Your task to perform on an android device: set an alarm Image 0: 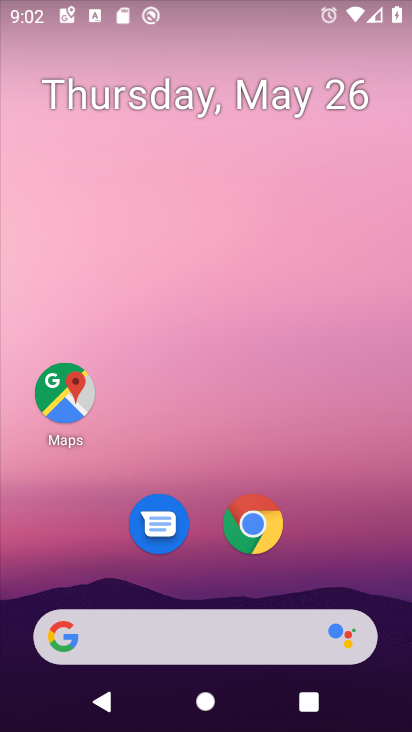
Step 0: drag from (235, 418) to (304, 5)
Your task to perform on an android device: set an alarm Image 1: 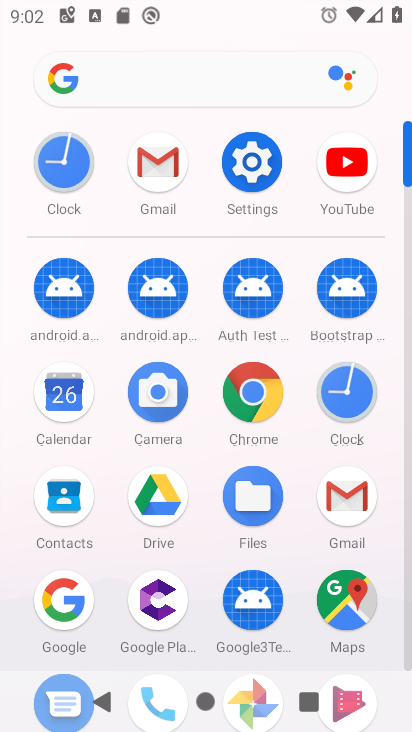
Step 1: click (65, 147)
Your task to perform on an android device: set an alarm Image 2: 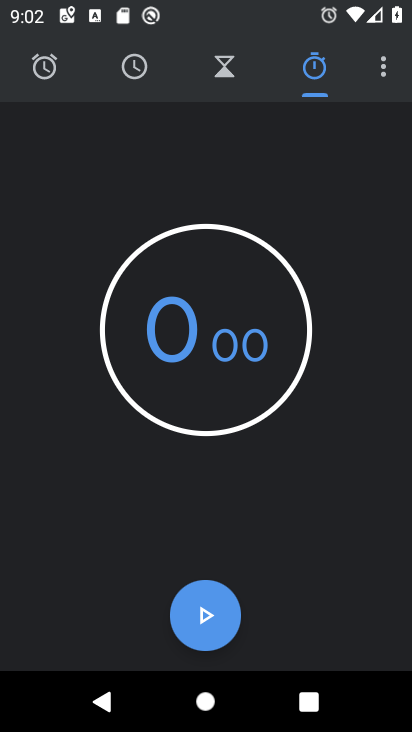
Step 2: click (36, 58)
Your task to perform on an android device: set an alarm Image 3: 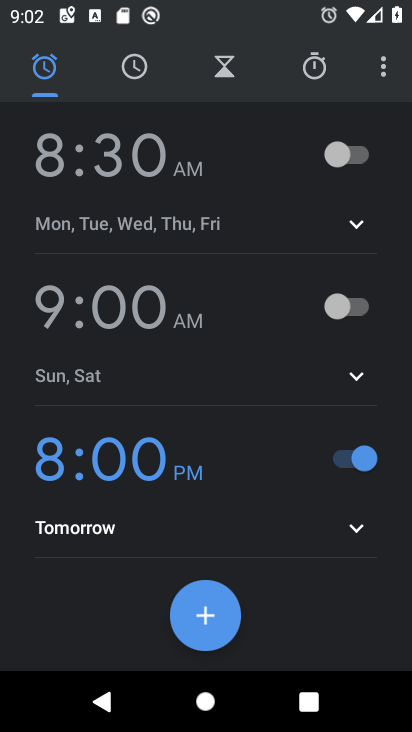
Step 3: click (212, 608)
Your task to perform on an android device: set an alarm Image 4: 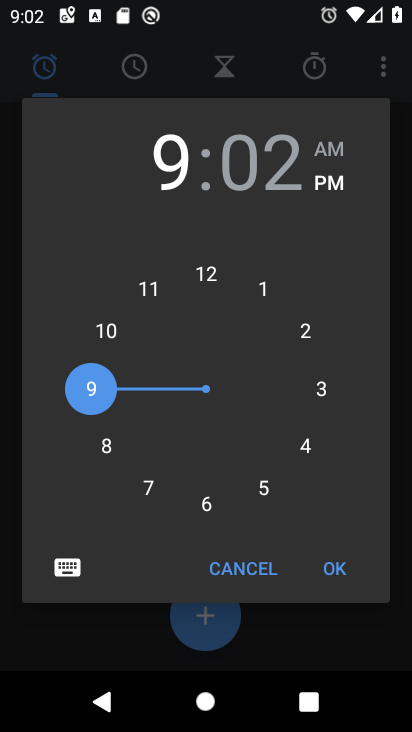
Step 4: click (263, 175)
Your task to perform on an android device: set an alarm Image 5: 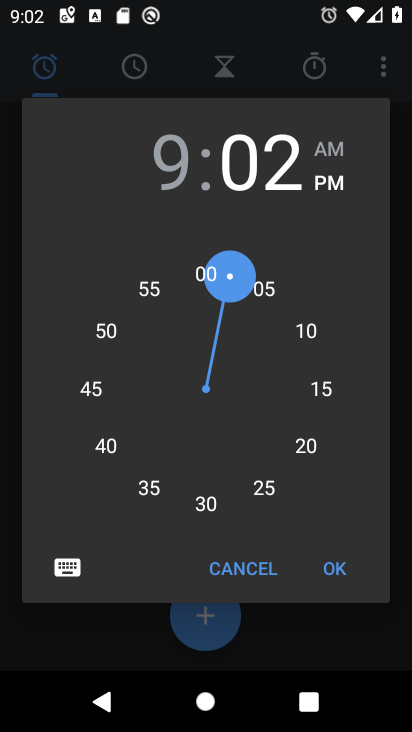
Step 5: click (204, 496)
Your task to perform on an android device: set an alarm Image 6: 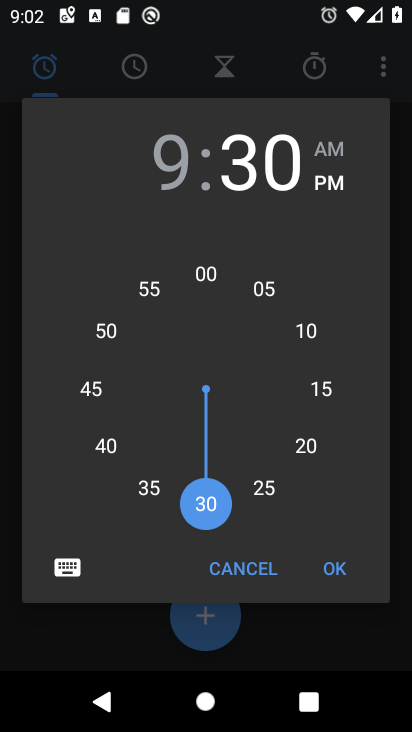
Step 6: click (338, 148)
Your task to perform on an android device: set an alarm Image 7: 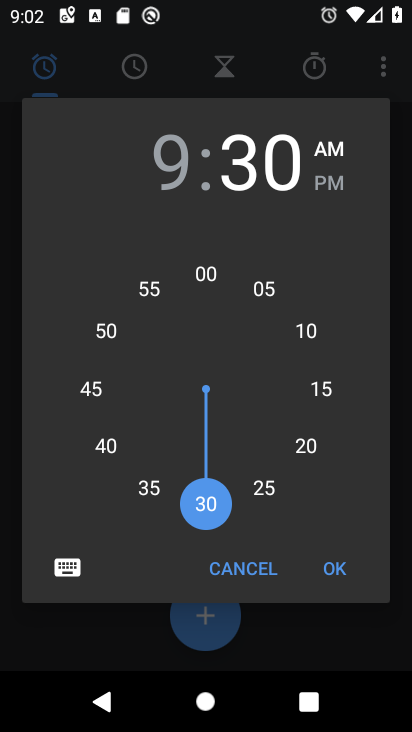
Step 7: click (334, 563)
Your task to perform on an android device: set an alarm Image 8: 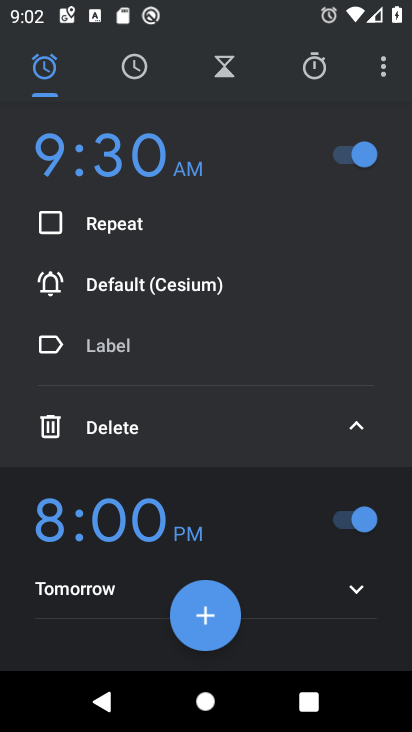
Step 8: task complete